Your task to perform on an android device: turn on notifications settings in the gmail app Image 0: 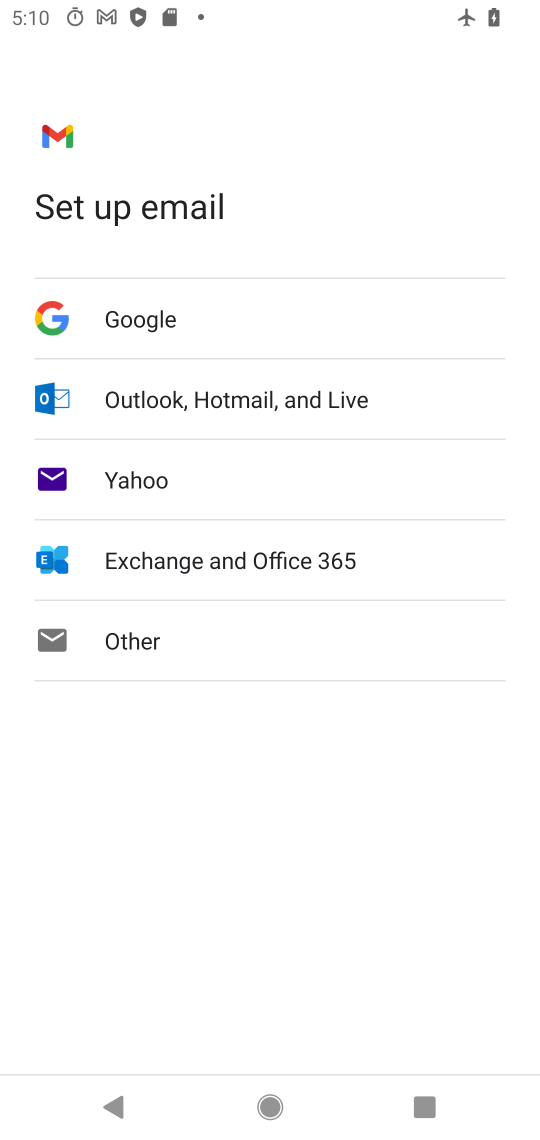
Step 0: press home button
Your task to perform on an android device: turn on notifications settings in the gmail app Image 1: 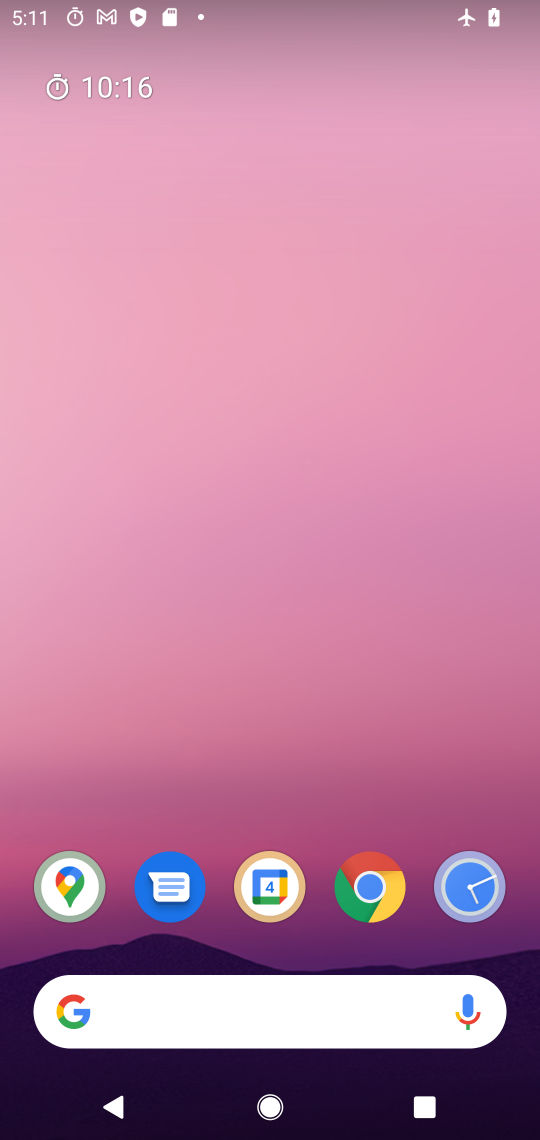
Step 1: drag from (507, 972) to (425, 292)
Your task to perform on an android device: turn on notifications settings in the gmail app Image 2: 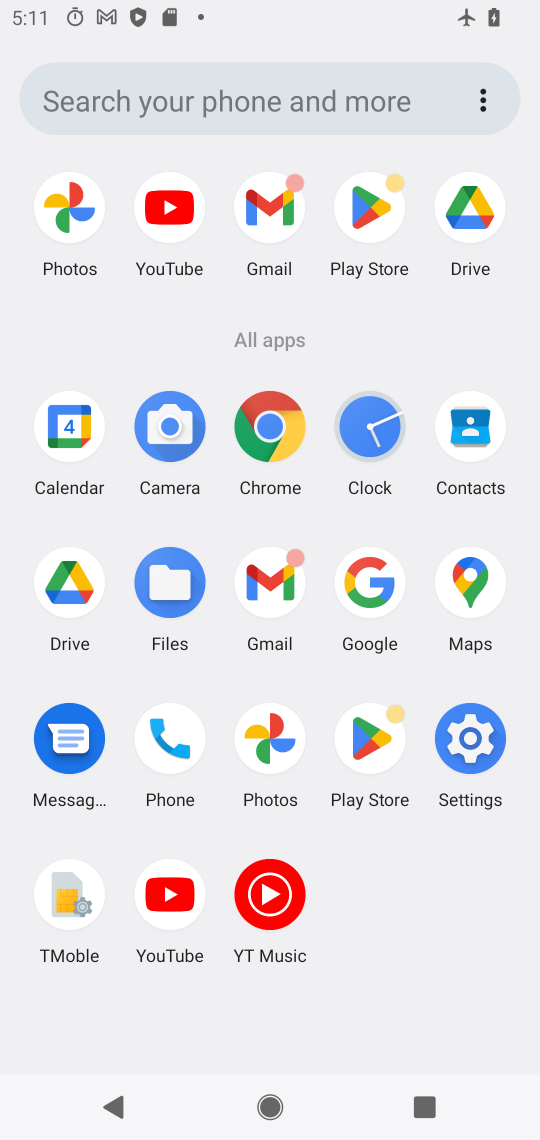
Step 2: click (288, 572)
Your task to perform on an android device: turn on notifications settings in the gmail app Image 3: 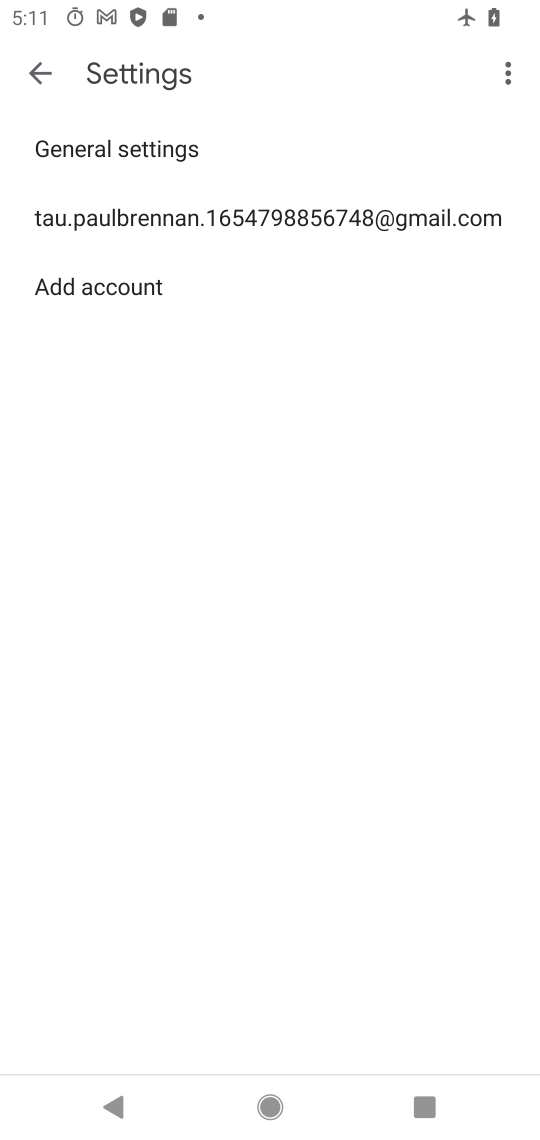
Step 3: click (306, 217)
Your task to perform on an android device: turn on notifications settings in the gmail app Image 4: 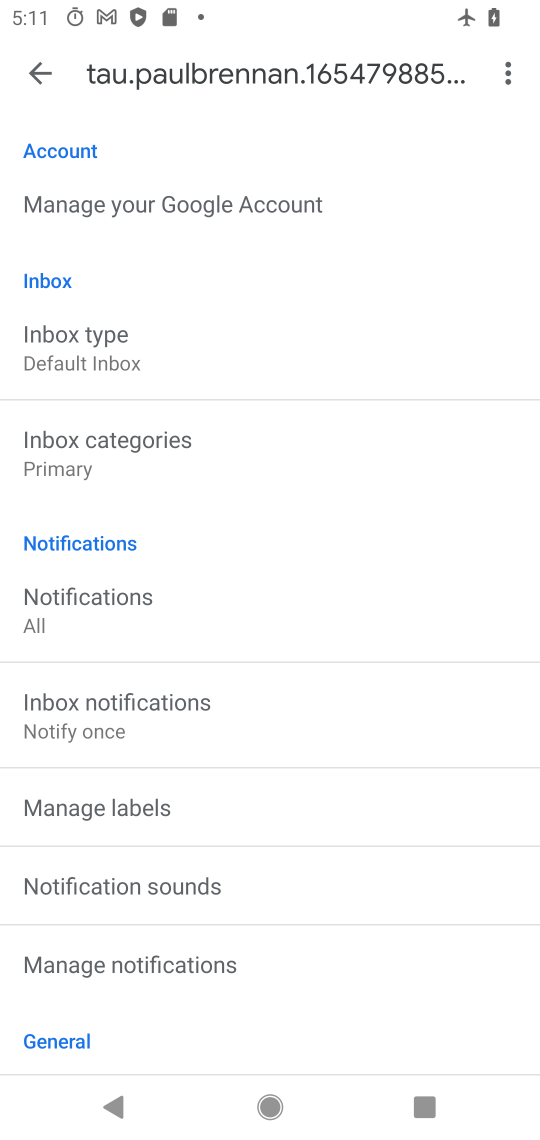
Step 4: click (82, 601)
Your task to perform on an android device: turn on notifications settings in the gmail app Image 5: 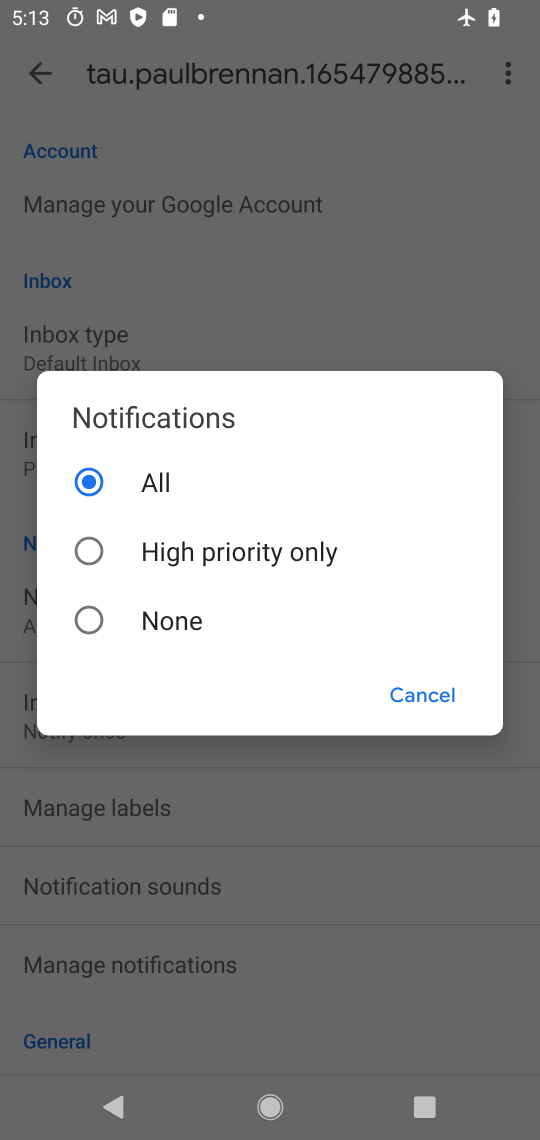
Step 5: task complete